Your task to perform on an android device: toggle notifications settings in the gmail app Image 0: 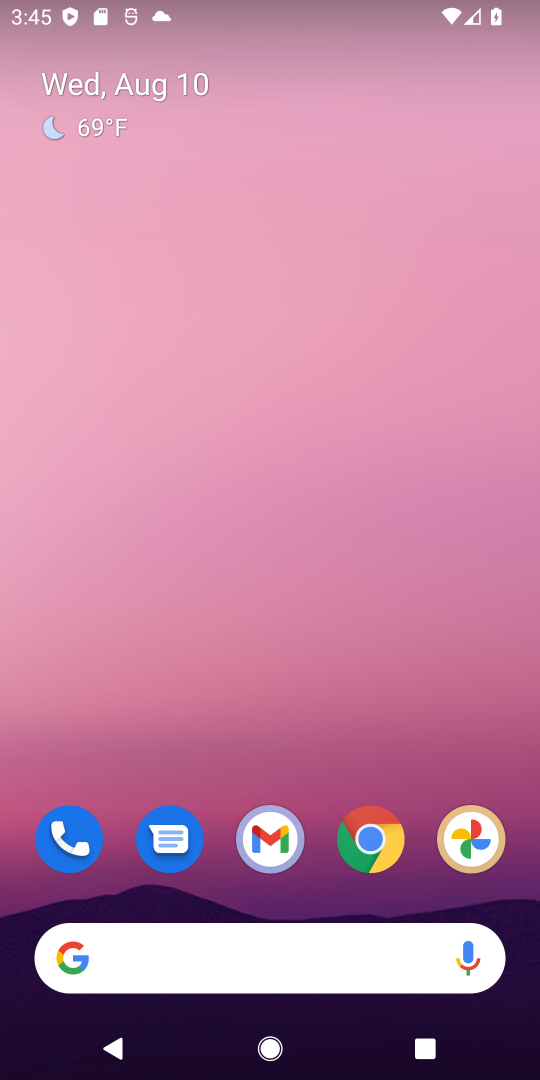
Step 0: click (271, 836)
Your task to perform on an android device: toggle notifications settings in the gmail app Image 1: 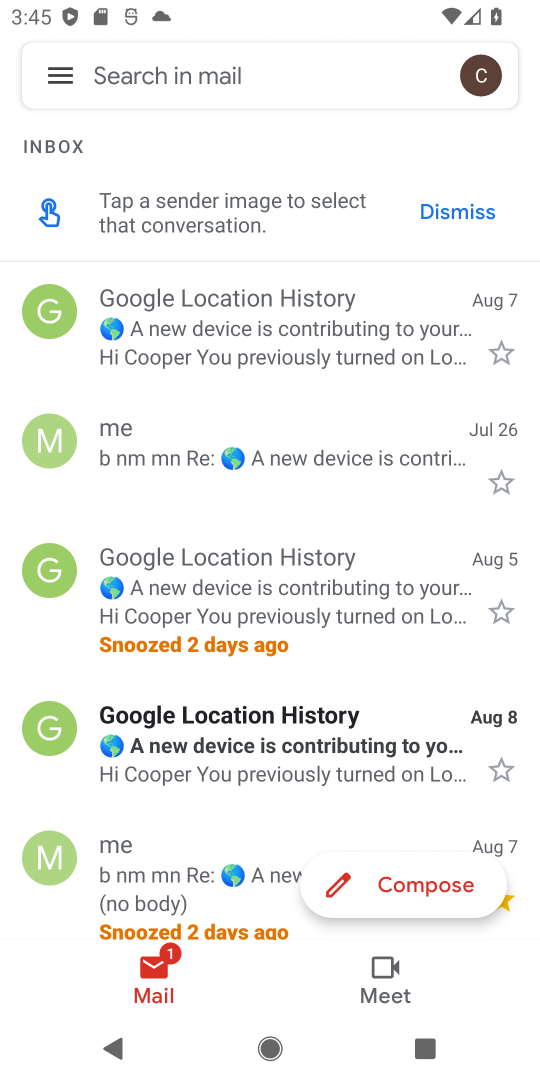
Step 1: click (55, 73)
Your task to perform on an android device: toggle notifications settings in the gmail app Image 2: 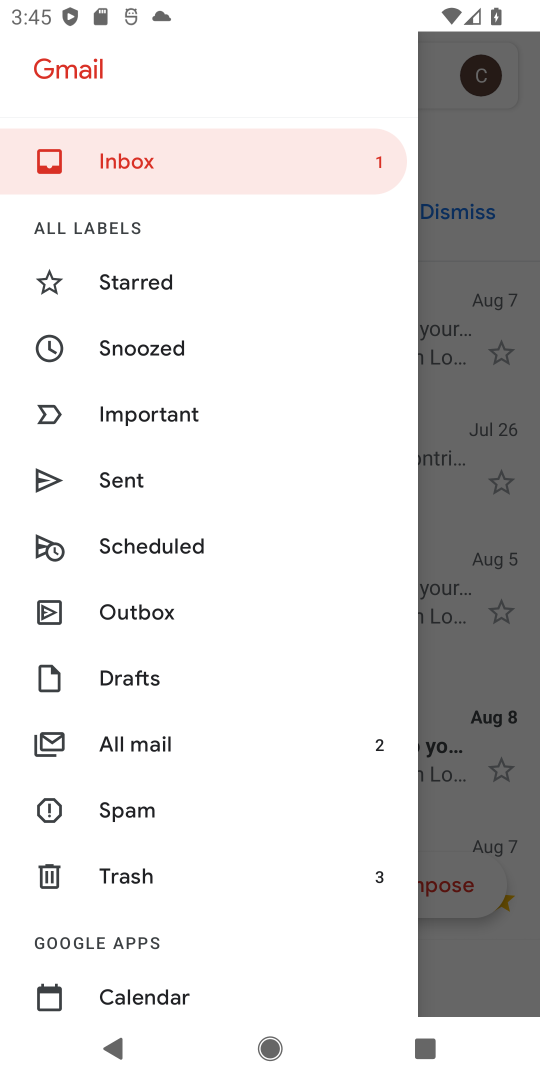
Step 2: drag from (187, 821) to (259, 88)
Your task to perform on an android device: toggle notifications settings in the gmail app Image 3: 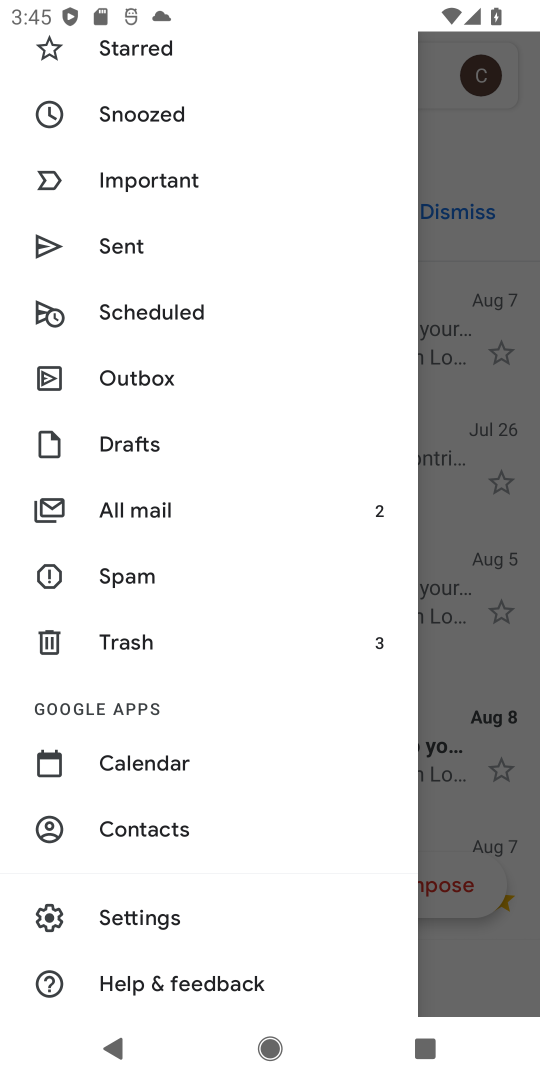
Step 3: click (175, 920)
Your task to perform on an android device: toggle notifications settings in the gmail app Image 4: 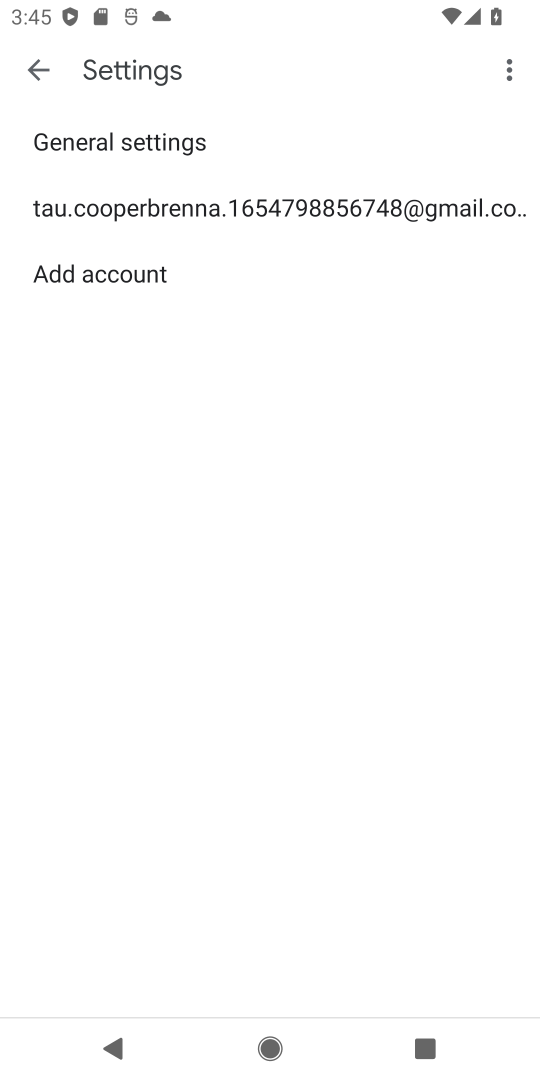
Step 4: click (343, 219)
Your task to perform on an android device: toggle notifications settings in the gmail app Image 5: 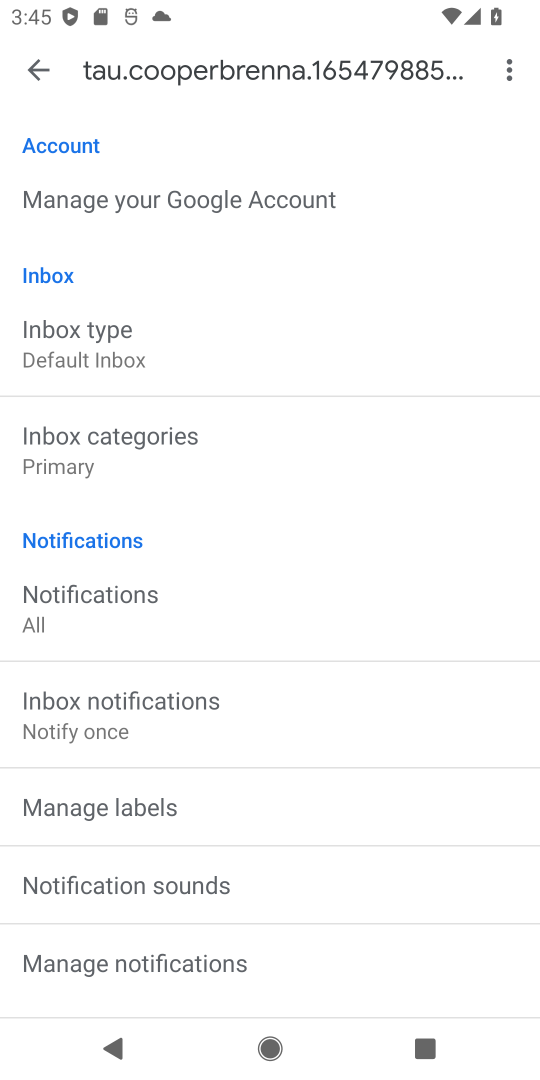
Step 5: click (220, 971)
Your task to perform on an android device: toggle notifications settings in the gmail app Image 6: 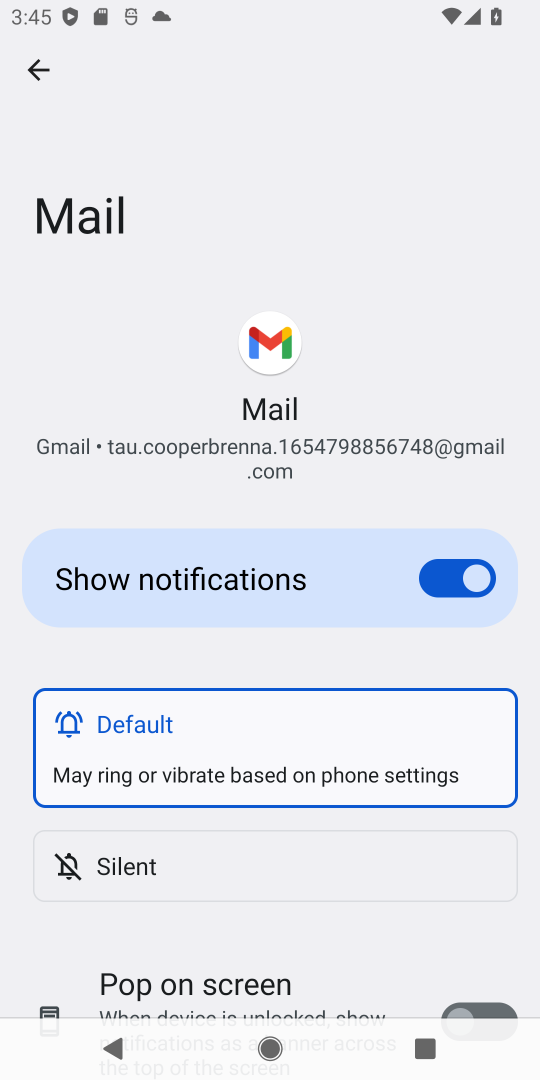
Step 6: click (467, 570)
Your task to perform on an android device: toggle notifications settings in the gmail app Image 7: 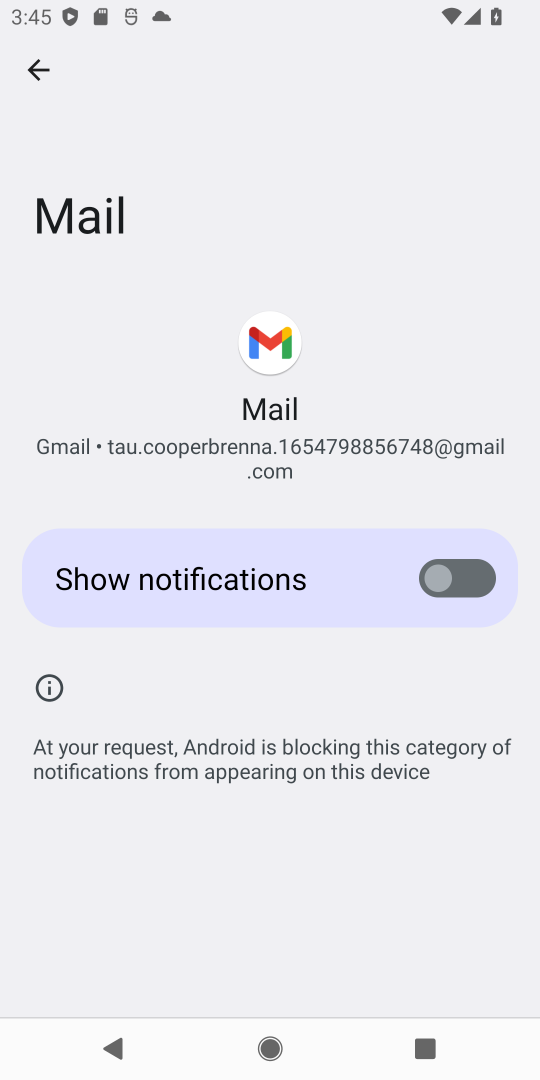
Step 7: task complete